Your task to perform on an android device: turn on data saver in the chrome app Image 0: 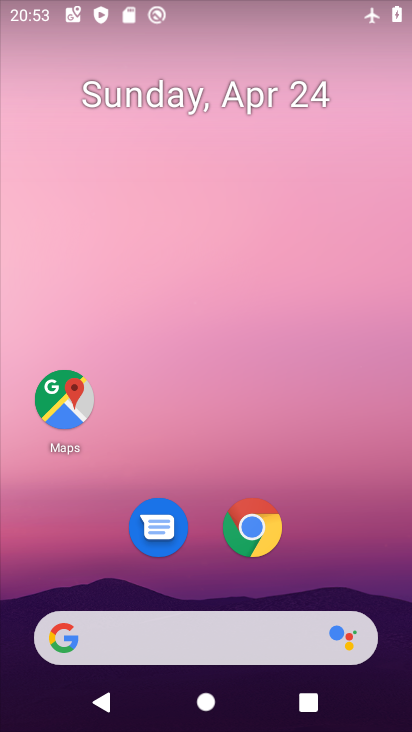
Step 0: click (251, 532)
Your task to perform on an android device: turn on data saver in the chrome app Image 1: 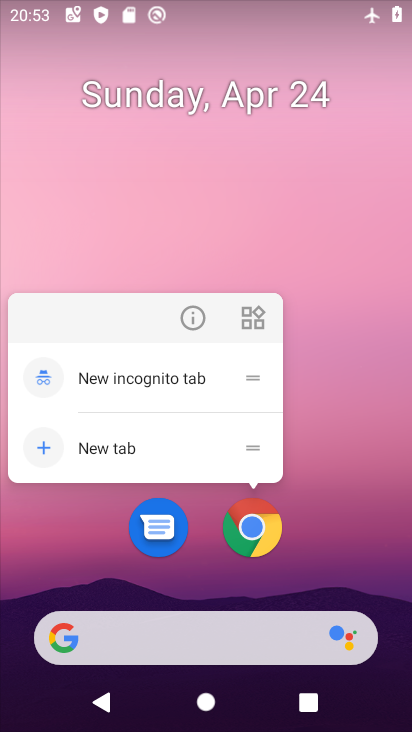
Step 1: click (256, 533)
Your task to perform on an android device: turn on data saver in the chrome app Image 2: 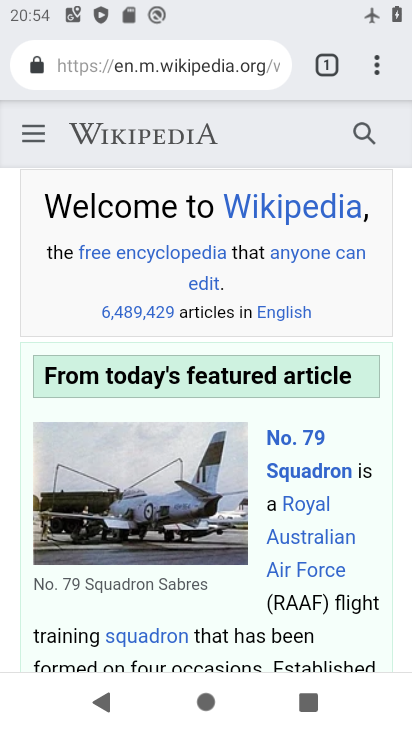
Step 2: click (378, 71)
Your task to perform on an android device: turn on data saver in the chrome app Image 3: 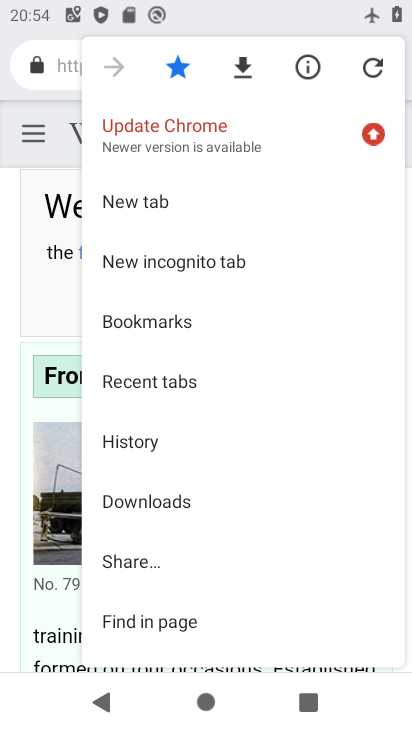
Step 3: drag from (275, 489) to (271, 209)
Your task to perform on an android device: turn on data saver in the chrome app Image 4: 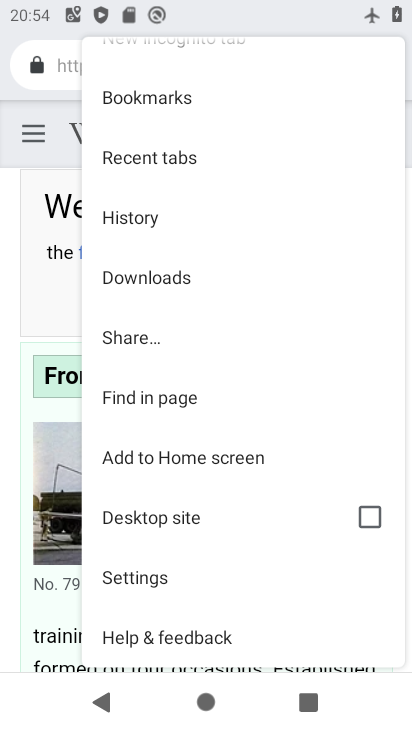
Step 4: click (126, 575)
Your task to perform on an android device: turn on data saver in the chrome app Image 5: 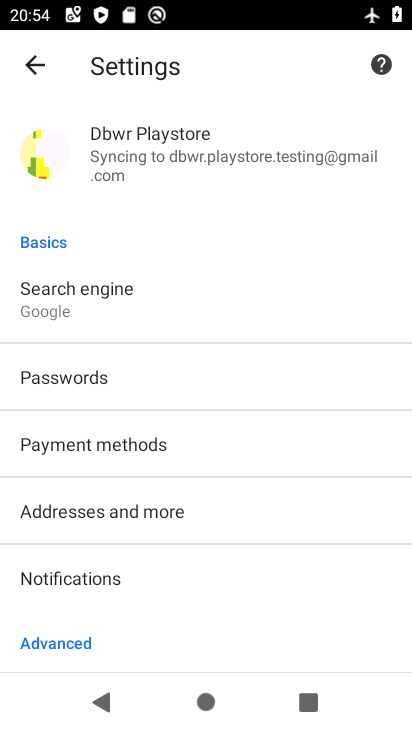
Step 5: drag from (249, 570) to (265, 183)
Your task to perform on an android device: turn on data saver in the chrome app Image 6: 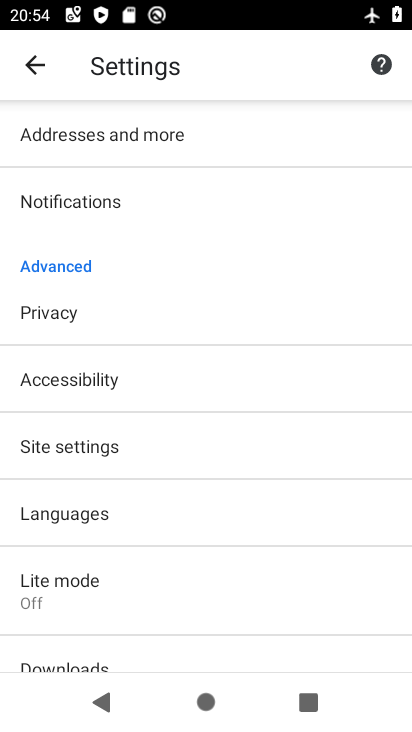
Step 6: click (49, 598)
Your task to perform on an android device: turn on data saver in the chrome app Image 7: 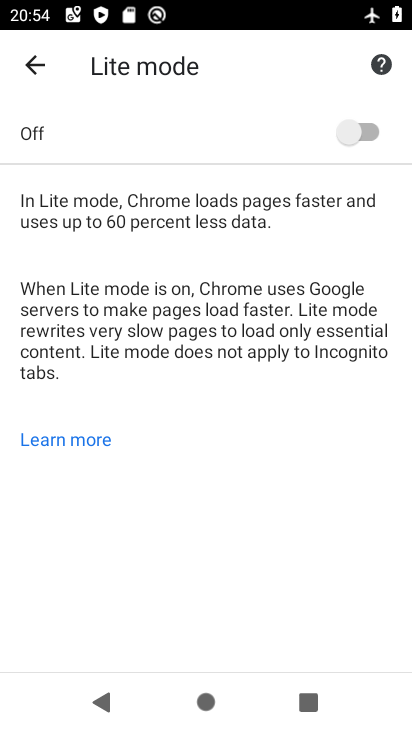
Step 7: click (337, 130)
Your task to perform on an android device: turn on data saver in the chrome app Image 8: 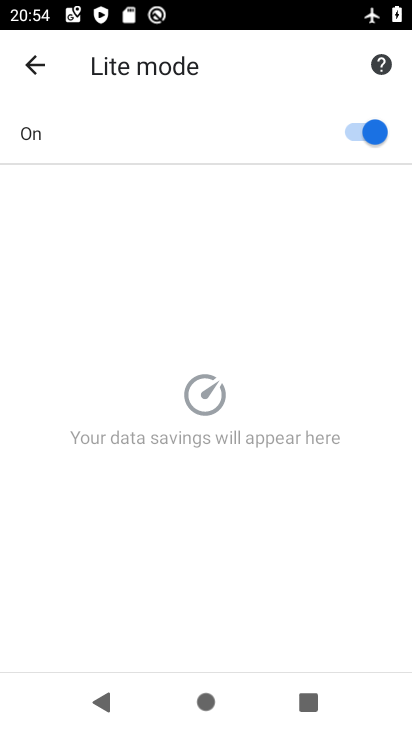
Step 8: task complete